Your task to perform on an android device: turn on wifi Image 0: 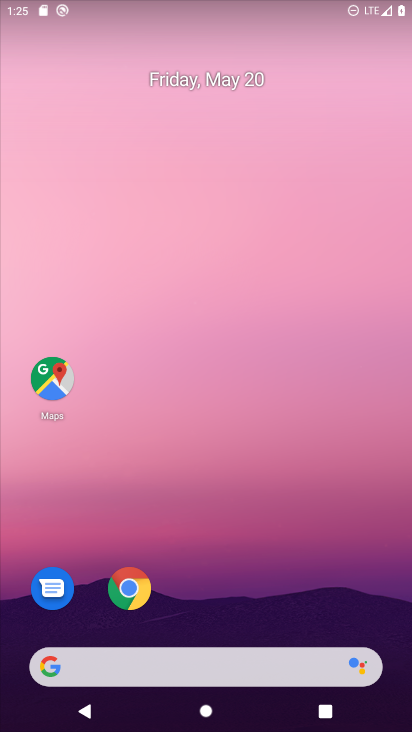
Step 0: drag from (399, 630) to (308, 59)
Your task to perform on an android device: turn on wifi Image 1: 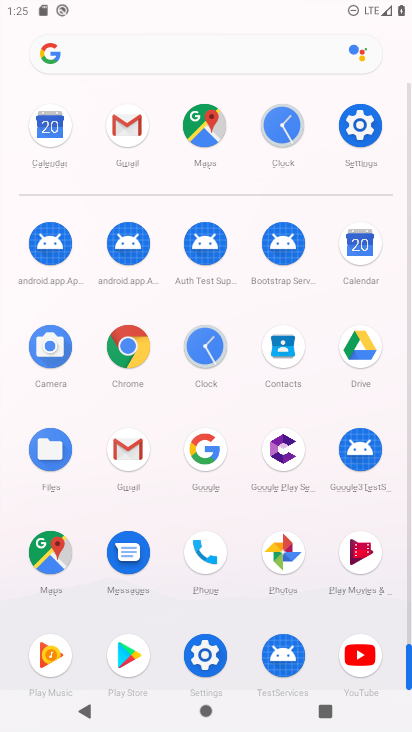
Step 1: click (207, 656)
Your task to perform on an android device: turn on wifi Image 2: 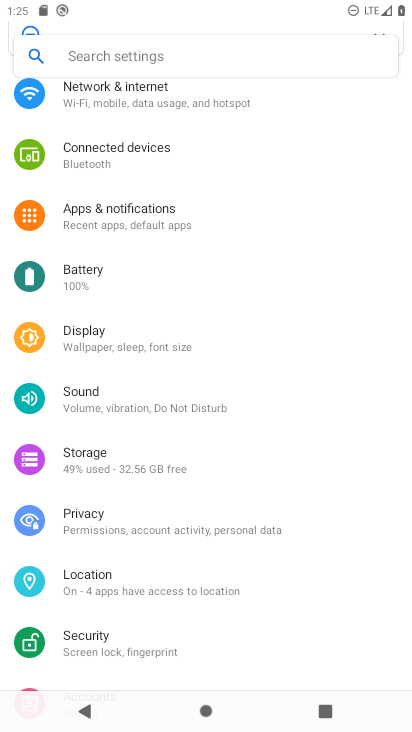
Step 2: drag from (293, 107) to (294, 334)
Your task to perform on an android device: turn on wifi Image 3: 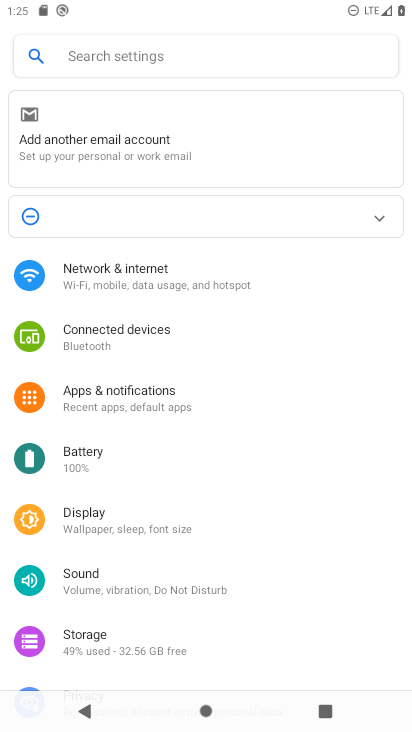
Step 3: click (148, 280)
Your task to perform on an android device: turn on wifi Image 4: 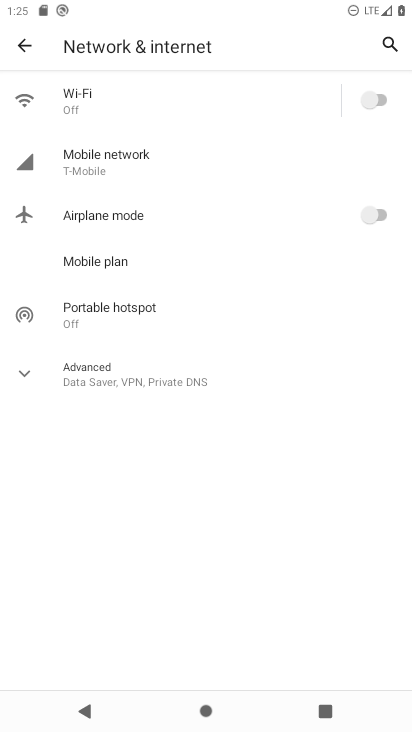
Step 4: click (382, 99)
Your task to perform on an android device: turn on wifi Image 5: 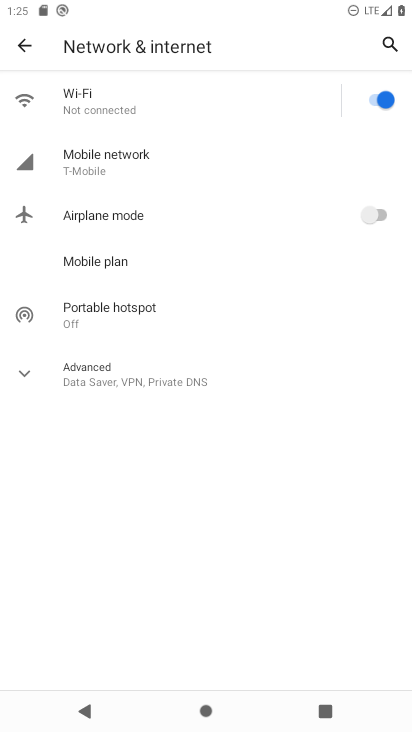
Step 5: task complete